Your task to perform on an android device: Open eBay Image 0: 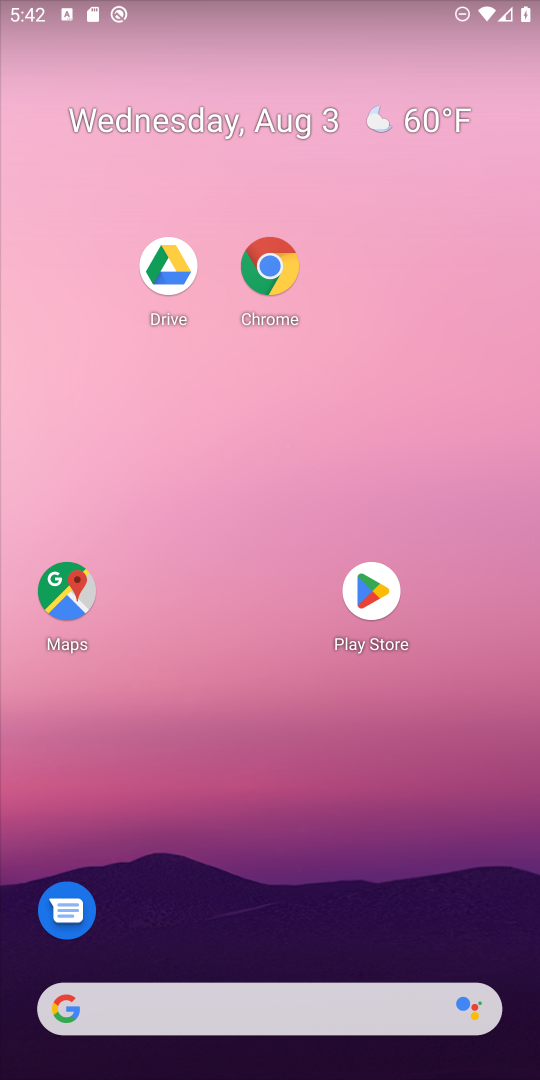
Step 0: drag from (333, 1002) to (530, 9)
Your task to perform on an android device: Open eBay Image 1: 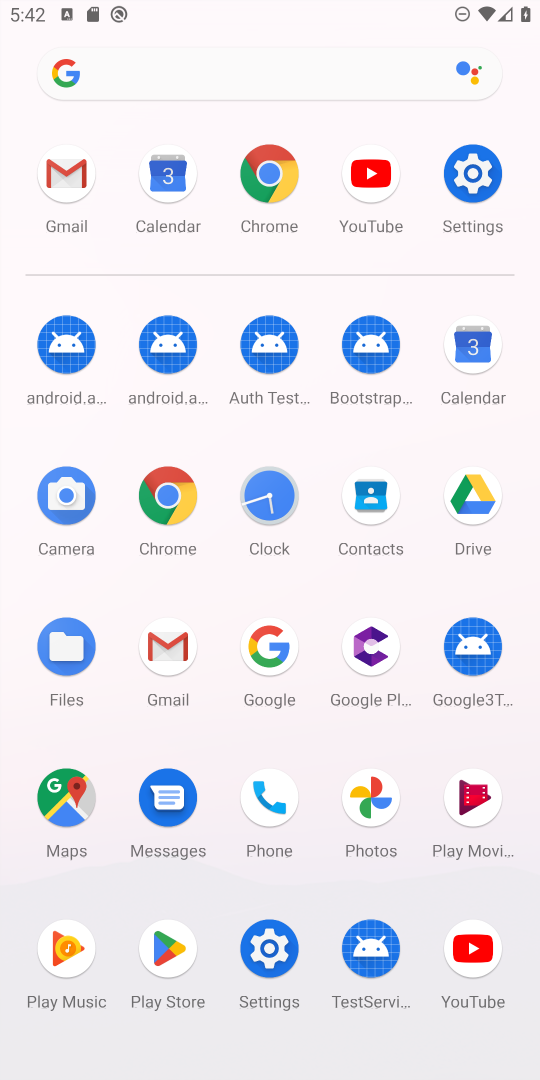
Step 1: click (163, 499)
Your task to perform on an android device: Open eBay Image 2: 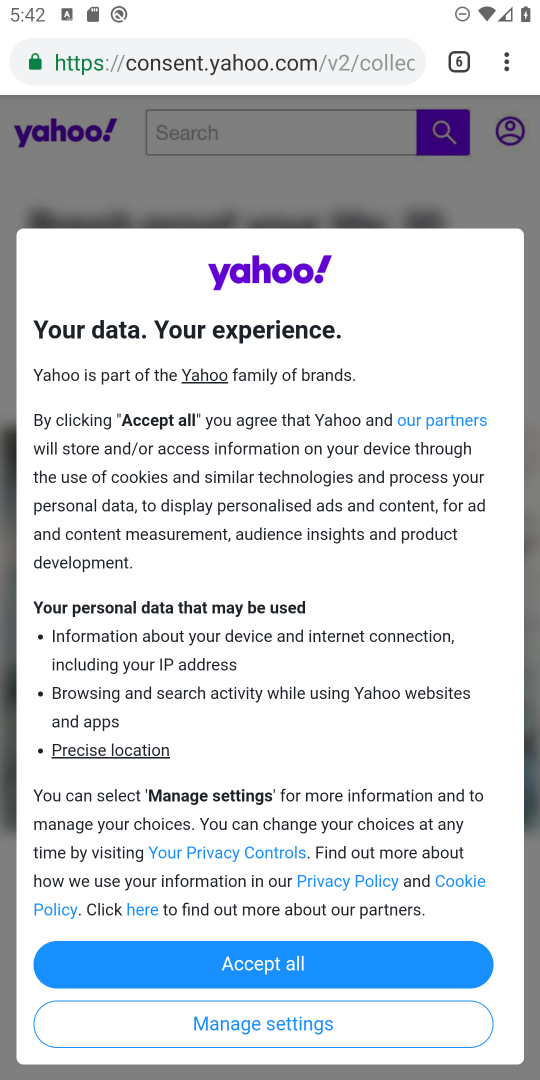
Step 2: click (189, 67)
Your task to perform on an android device: Open eBay Image 3: 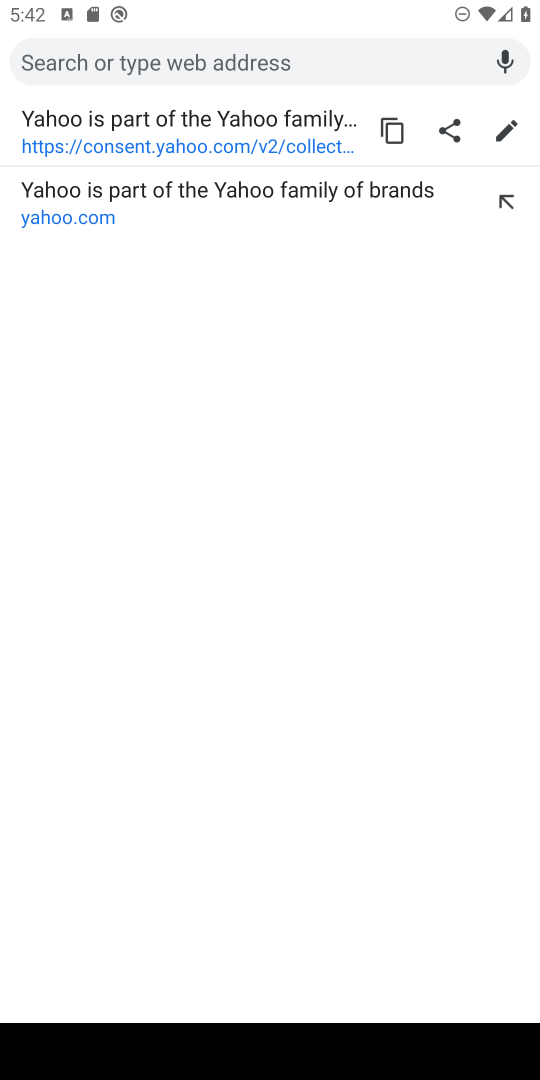
Step 3: type "ebay"
Your task to perform on an android device: Open eBay Image 4: 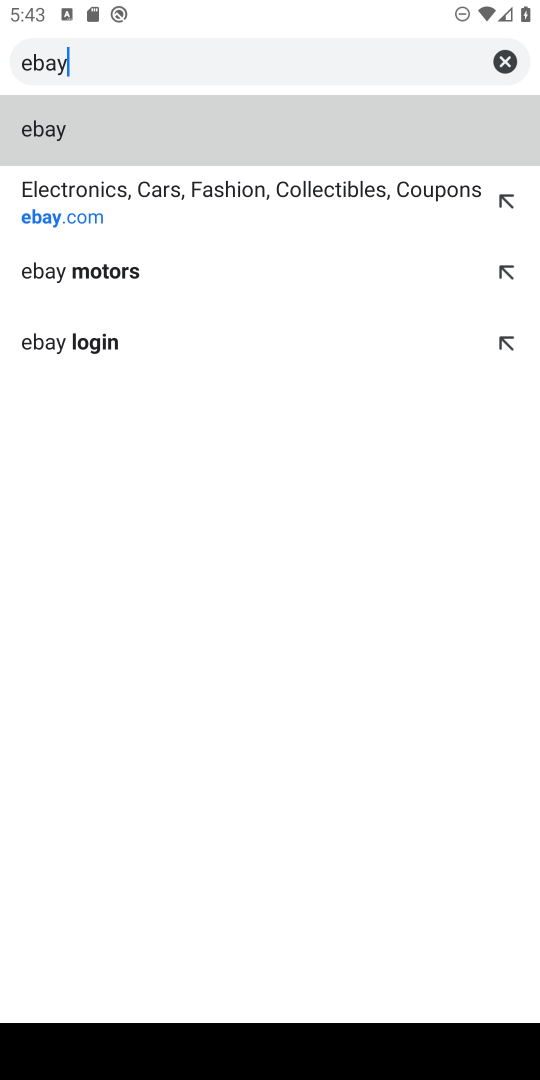
Step 4: click (53, 205)
Your task to perform on an android device: Open eBay Image 5: 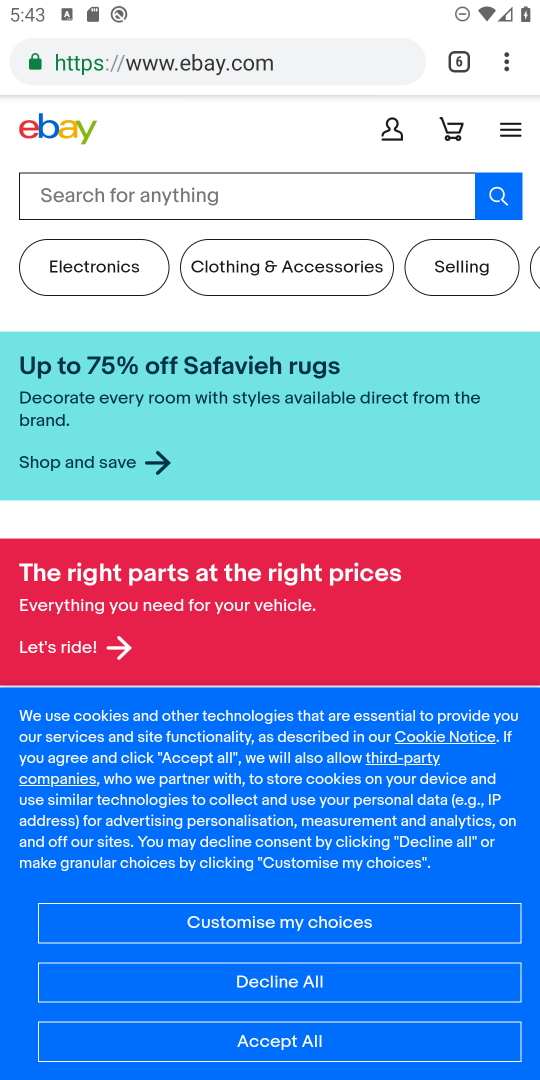
Step 5: task complete